Your task to perform on an android device: Do I have any events this weekend? Image 0: 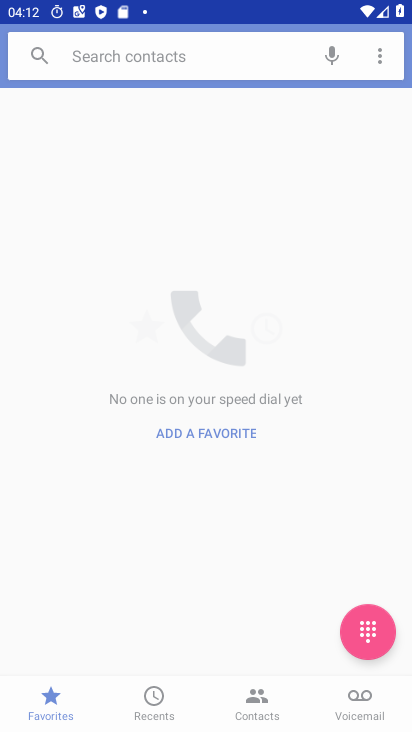
Step 0: drag from (290, 706) to (163, 34)
Your task to perform on an android device: Do I have any events this weekend? Image 1: 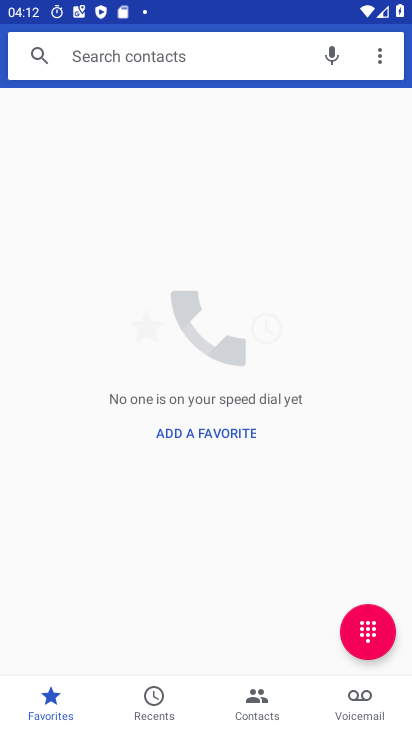
Step 1: press back button
Your task to perform on an android device: Do I have any events this weekend? Image 2: 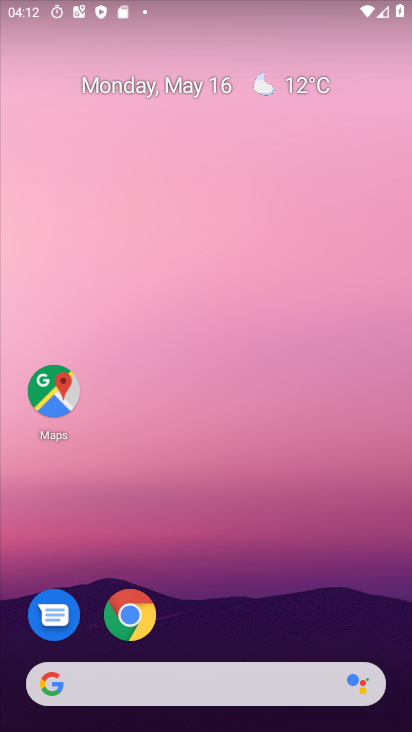
Step 2: drag from (223, 633) to (181, 22)
Your task to perform on an android device: Do I have any events this weekend? Image 3: 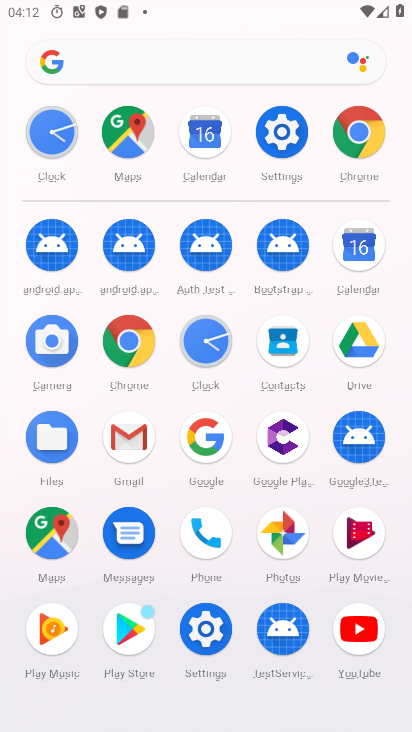
Step 3: click (363, 241)
Your task to perform on an android device: Do I have any events this weekend? Image 4: 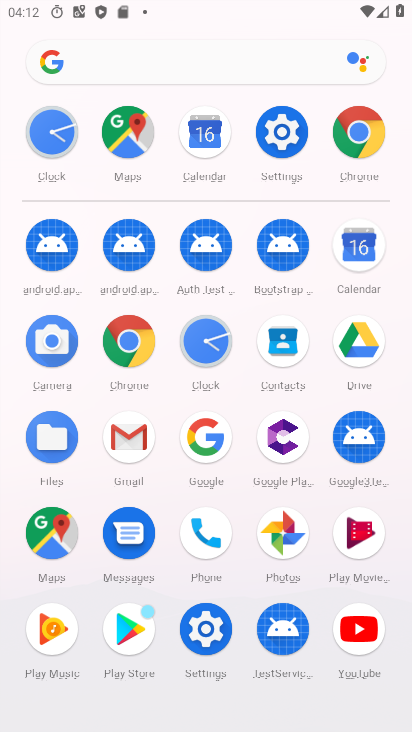
Step 4: click (362, 249)
Your task to perform on an android device: Do I have any events this weekend? Image 5: 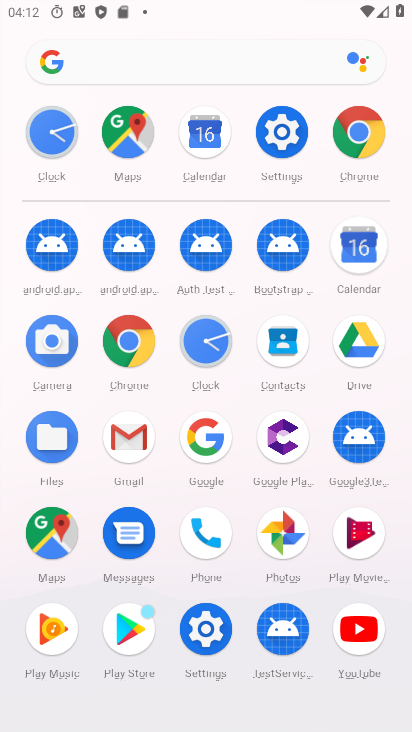
Step 5: click (362, 249)
Your task to perform on an android device: Do I have any events this weekend? Image 6: 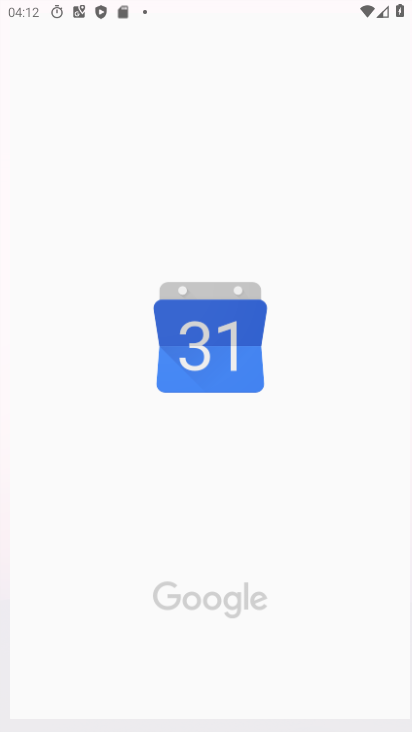
Step 6: click (362, 249)
Your task to perform on an android device: Do I have any events this weekend? Image 7: 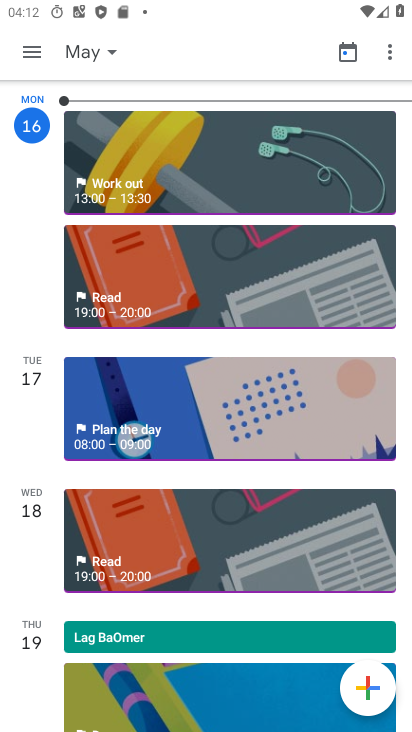
Step 7: click (130, 413)
Your task to perform on an android device: Do I have any events this weekend? Image 8: 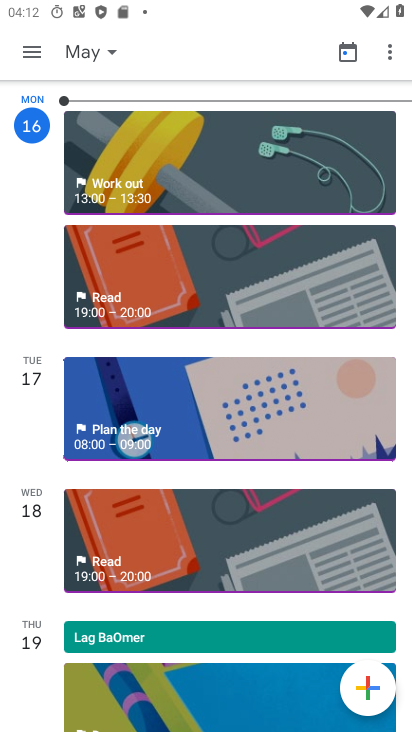
Step 8: click (130, 413)
Your task to perform on an android device: Do I have any events this weekend? Image 9: 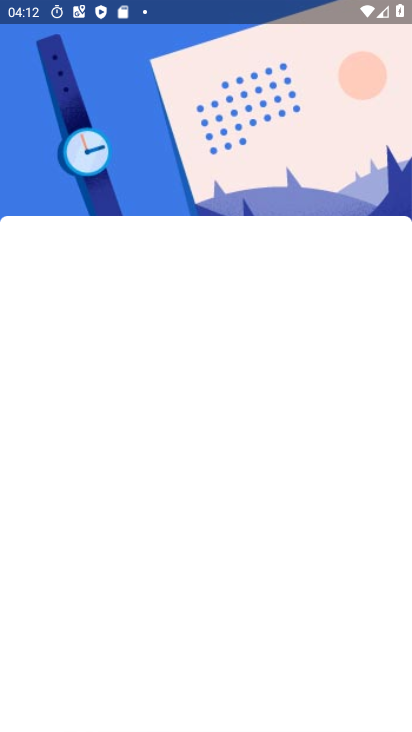
Step 9: click (130, 413)
Your task to perform on an android device: Do I have any events this weekend? Image 10: 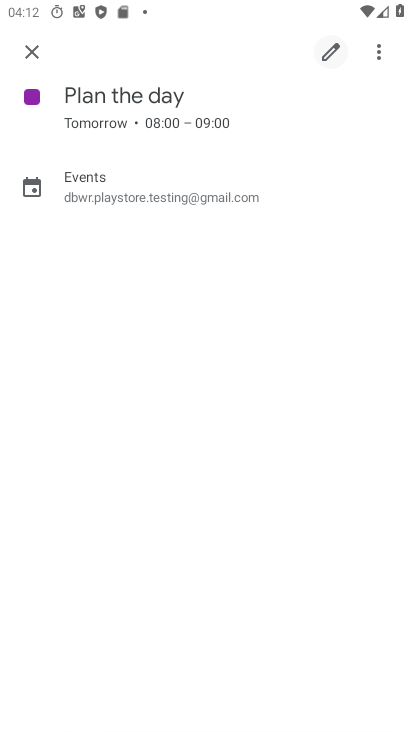
Step 10: click (131, 413)
Your task to perform on an android device: Do I have any events this weekend? Image 11: 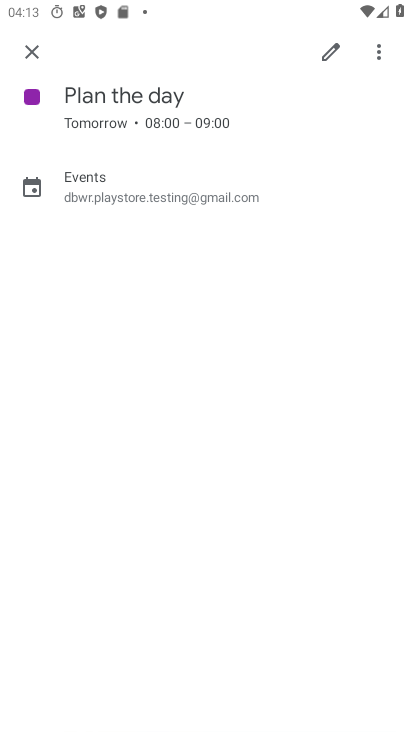
Step 11: task complete